Your task to perform on an android device: Open calendar and show me the first week of next month Image 0: 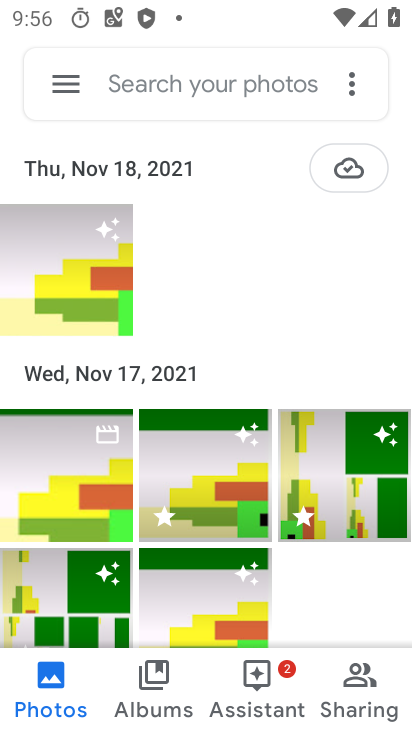
Step 0: press home button
Your task to perform on an android device: Open calendar and show me the first week of next month Image 1: 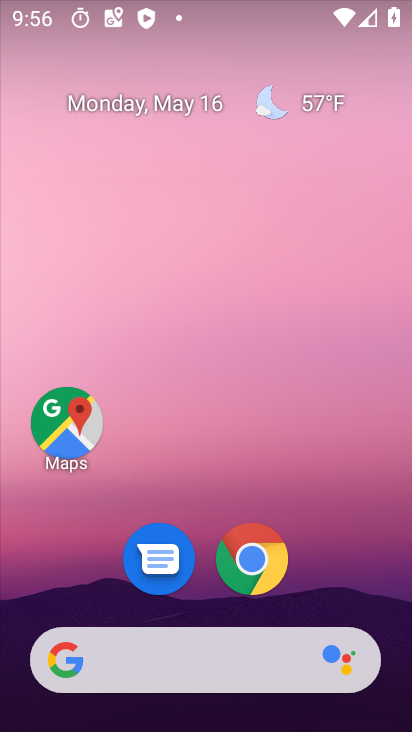
Step 1: drag from (330, 566) to (275, 96)
Your task to perform on an android device: Open calendar and show me the first week of next month Image 2: 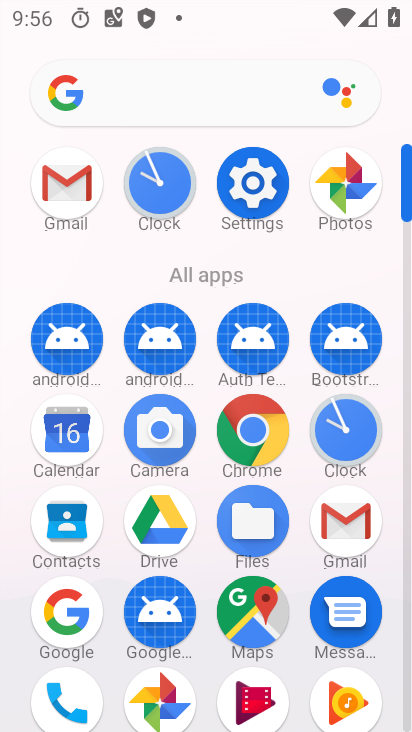
Step 2: click (55, 434)
Your task to perform on an android device: Open calendar and show me the first week of next month Image 3: 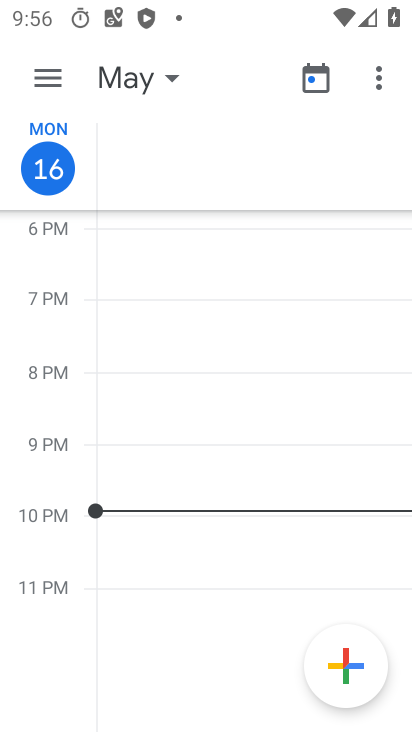
Step 3: click (123, 80)
Your task to perform on an android device: Open calendar and show me the first week of next month Image 4: 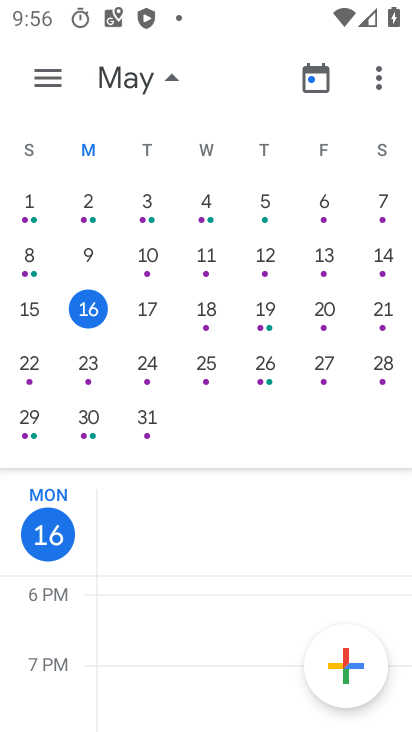
Step 4: drag from (365, 319) to (0, 275)
Your task to perform on an android device: Open calendar and show me the first week of next month Image 5: 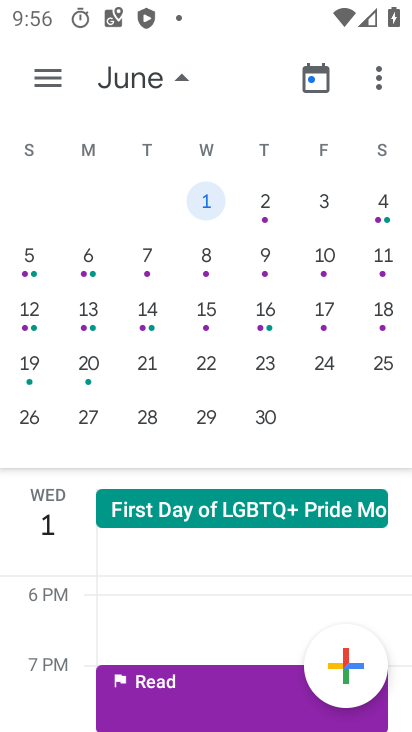
Step 5: click (322, 267)
Your task to perform on an android device: Open calendar and show me the first week of next month Image 6: 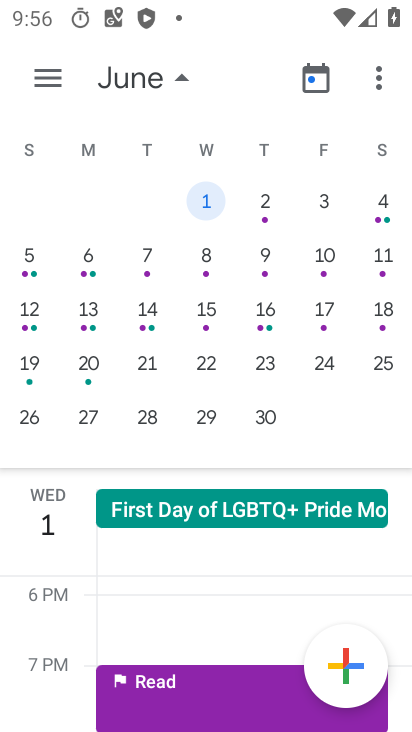
Step 6: click (209, 202)
Your task to perform on an android device: Open calendar and show me the first week of next month Image 7: 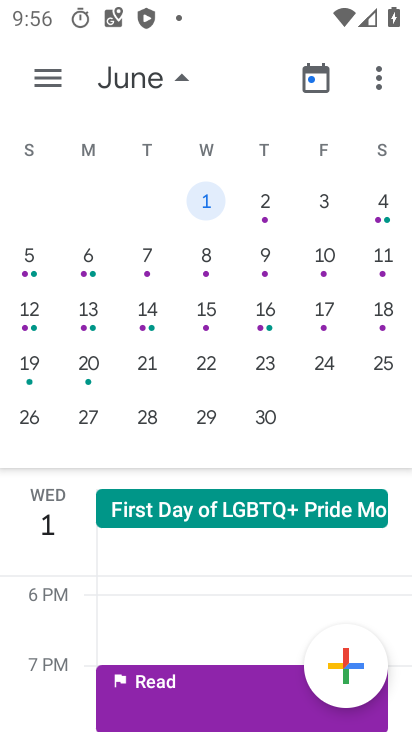
Step 7: task complete